Your task to perform on an android device: turn off notifications settings in the gmail app Image 0: 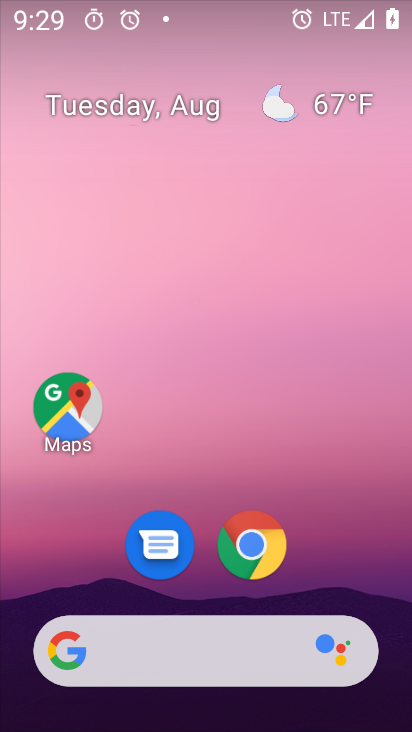
Step 0: drag from (237, 639) to (250, 120)
Your task to perform on an android device: turn off notifications settings in the gmail app Image 1: 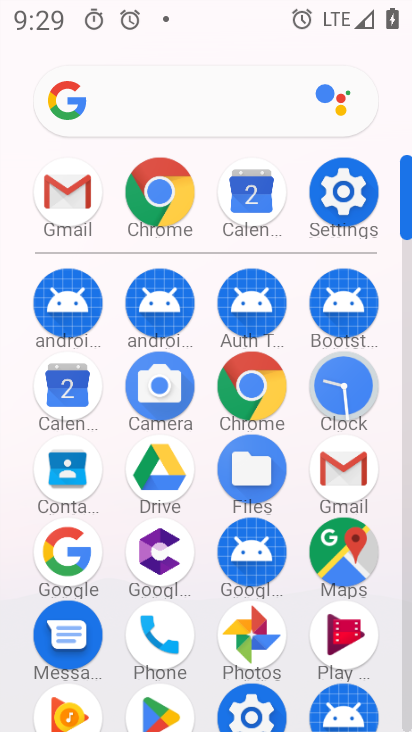
Step 1: click (343, 470)
Your task to perform on an android device: turn off notifications settings in the gmail app Image 2: 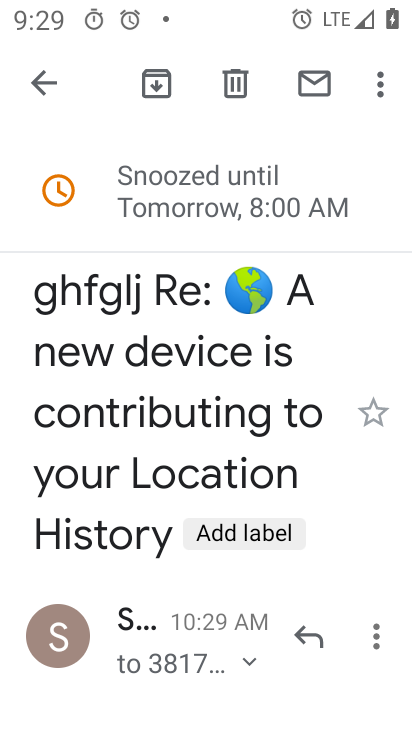
Step 2: click (49, 64)
Your task to perform on an android device: turn off notifications settings in the gmail app Image 3: 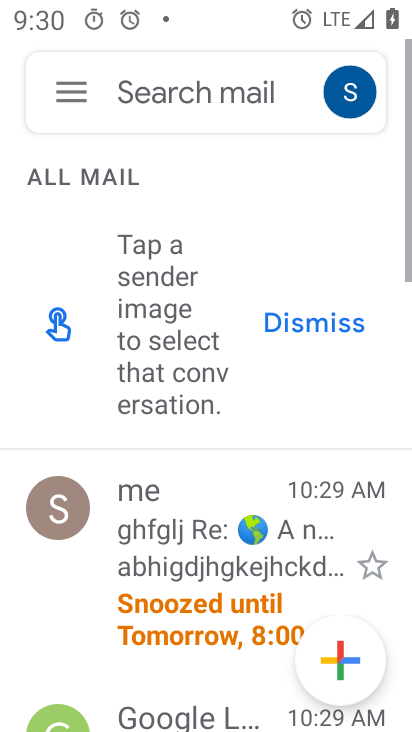
Step 3: click (71, 97)
Your task to perform on an android device: turn off notifications settings in the gmail app Image 4: 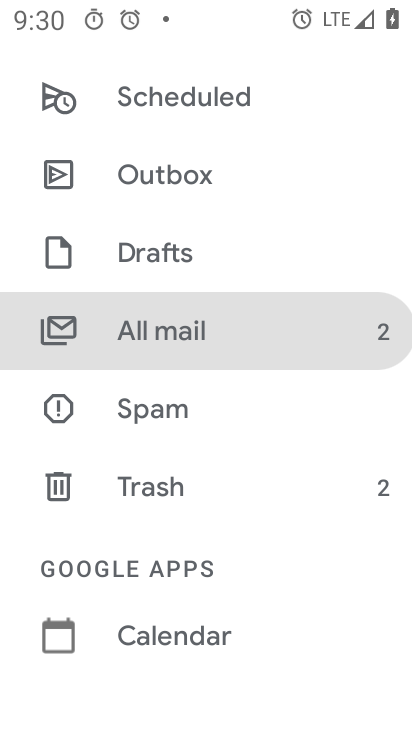
Step 4: drag from (122, 632) to (184, 120)
Your task to perform on an android device: turn off notifications settings in the gmail app Image 5: 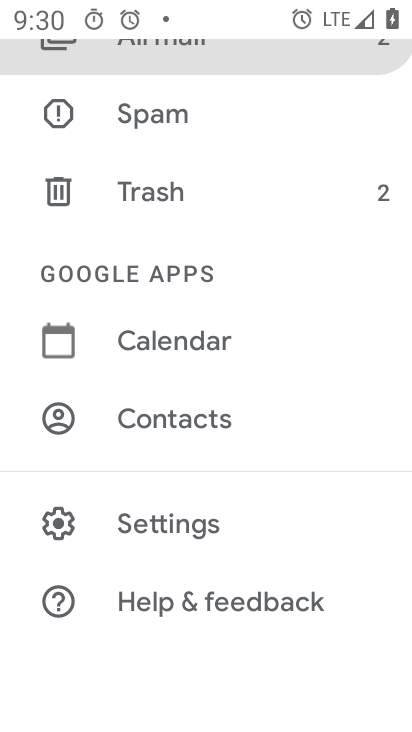
Step 5: click (169, 523)
Your task to perform on an android device: turn off notifications settings in the gmail app Image 6: 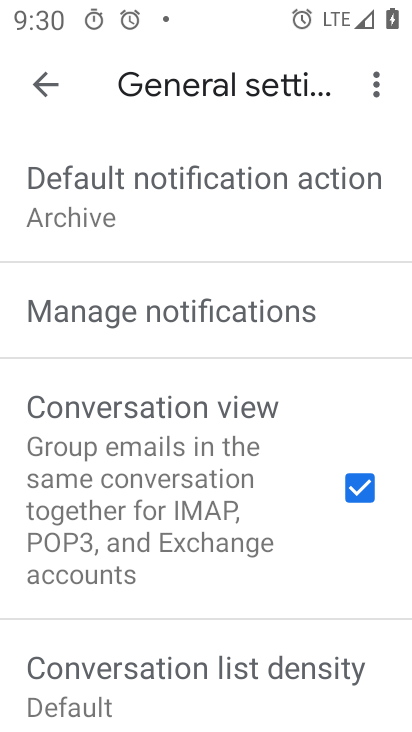
Step 6: click (177, 319)
Your task to perform on an android device: turn off notifications settings in the gmail app Image 7: 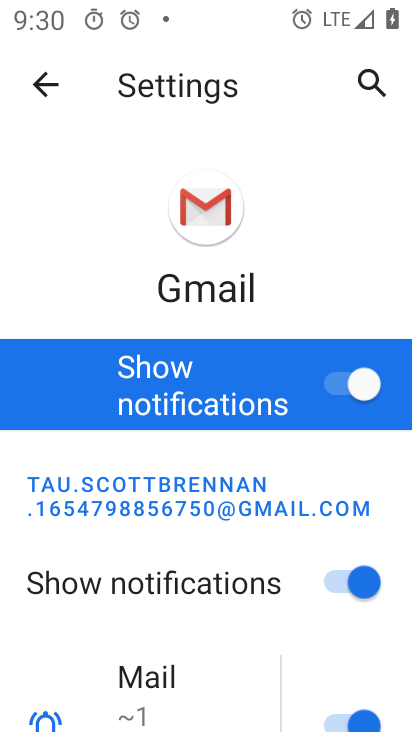
Step 7: click (308, 384)
Your task to perform on an android device: turn off notifications settings in the gmail app Image 8: 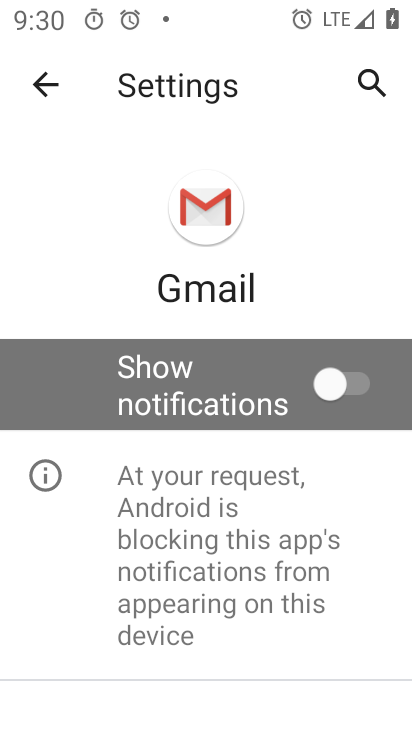
Step 8: task complete